Your task to perform on an android device: See recent photos Image 0: 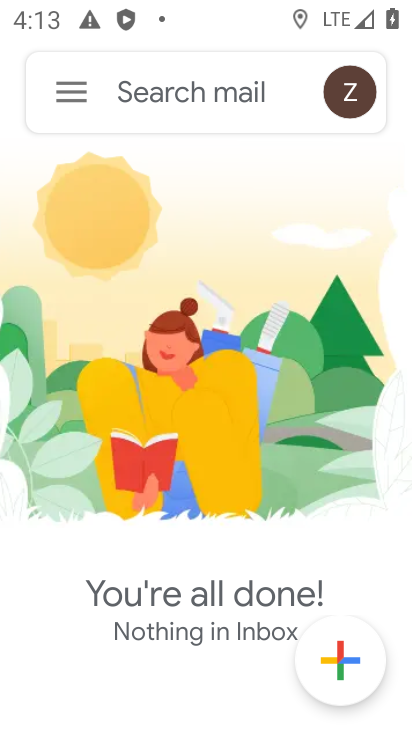
Step 0: press home button
Your task to perform on an android device: See recent photos Image 1: 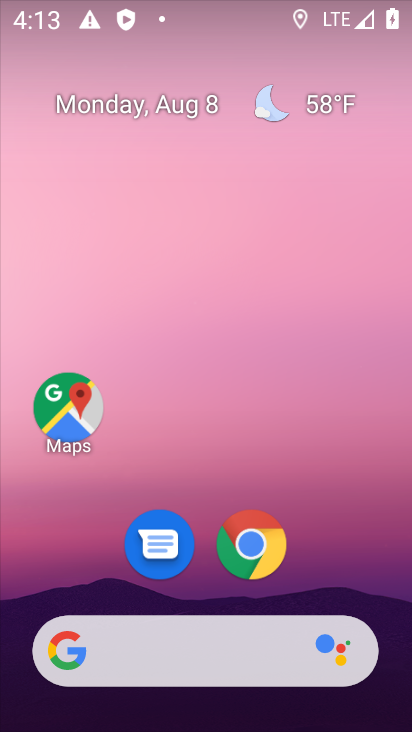
Step 1: drag from (276, 475) to (379, 337)
Your task to perform on an android device: See recent photos Image 2: 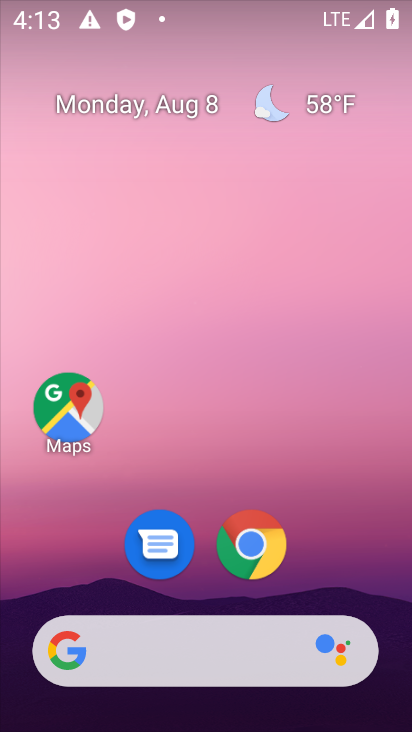
Step 2: drag from (221, 626) to (333, 723)
Your task to perform on an android device: See recent photos Image 3: 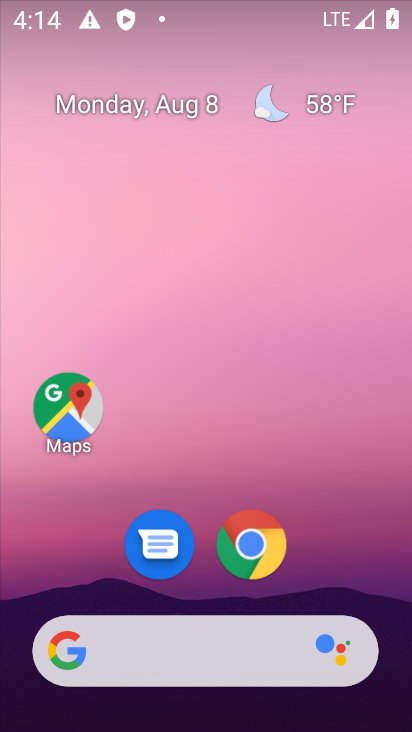
Step 3: drag from (203, 559) to (188, 141)
Your task to perform on an android device: See recent photos Image 4: 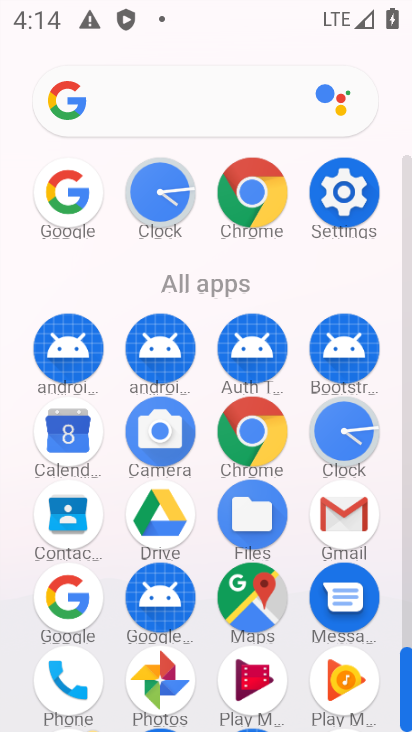
Step 4: click (45, 593)
Your task to perform on an android device: See recent photos Image 5: 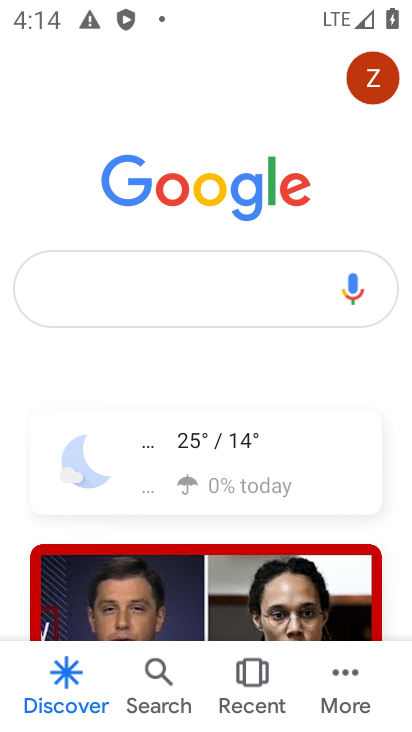
Step 5: press home button
Your task to perform on an android device: See recent photos Image 6: 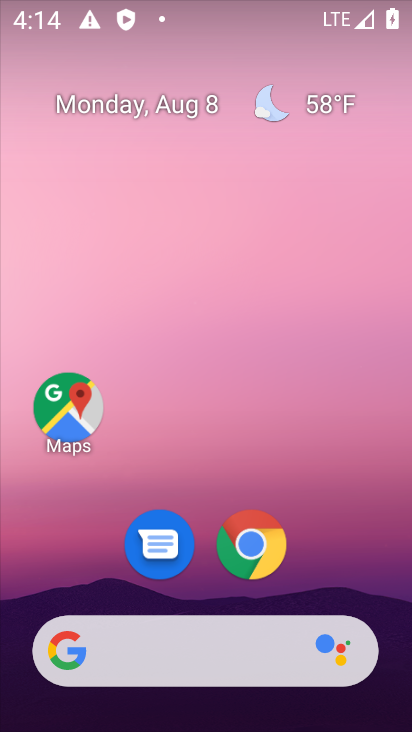
Step 6: drag from (204, 543) to (197, 38)
Your task to perform on an android device: See recent photos Image 7: 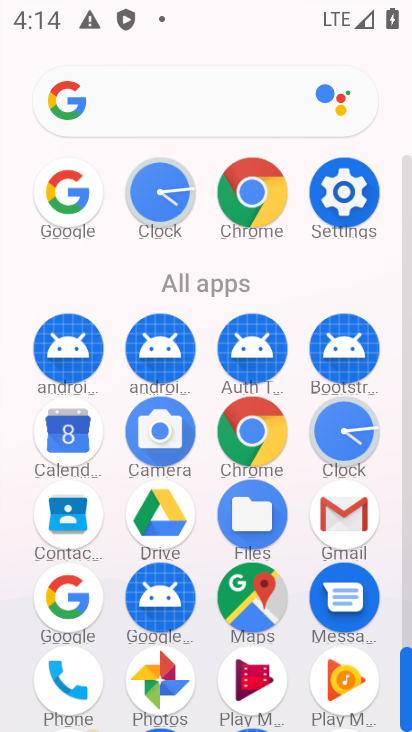
Step 7: click (176, 676)
Your task to perform on an android device: See recent photos Image 8: 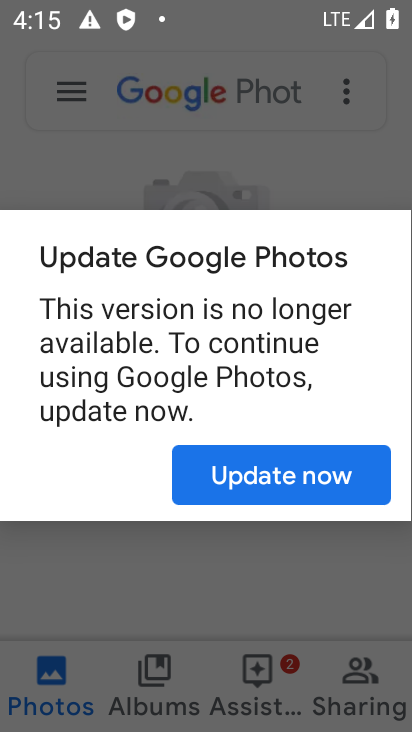
Step 8: task complete